Your task to perform on an android device: toggle pop-ups in chrome Image 0: 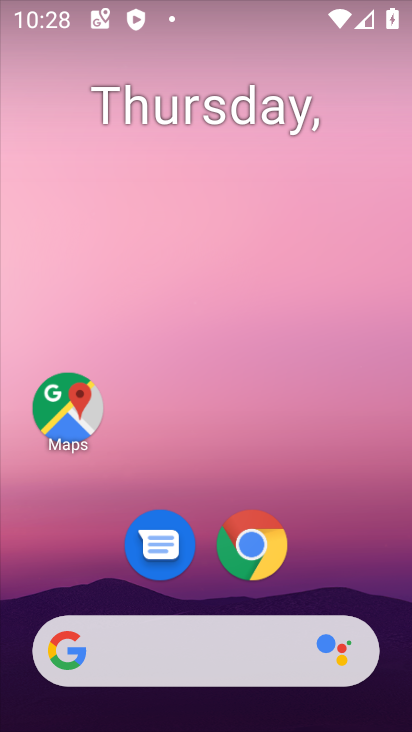
Step 0: click (252, 546)
Your task to perform on an android device: toggle pop-ups in chrome Image 1: 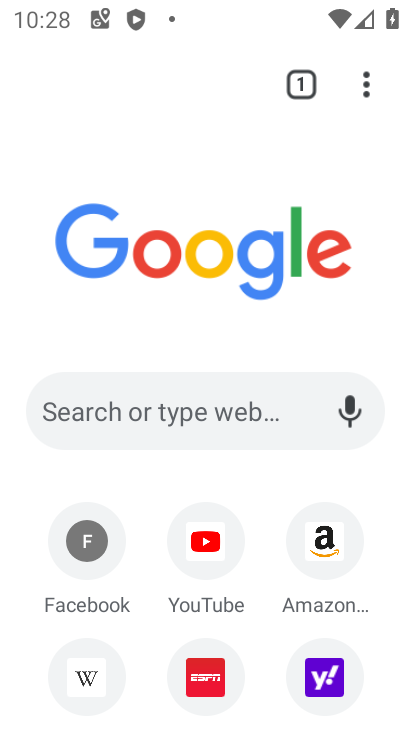
Step 1: click (367, 85)
Your task to perform on an android device: toggle pop-ups in chrome Image 2: 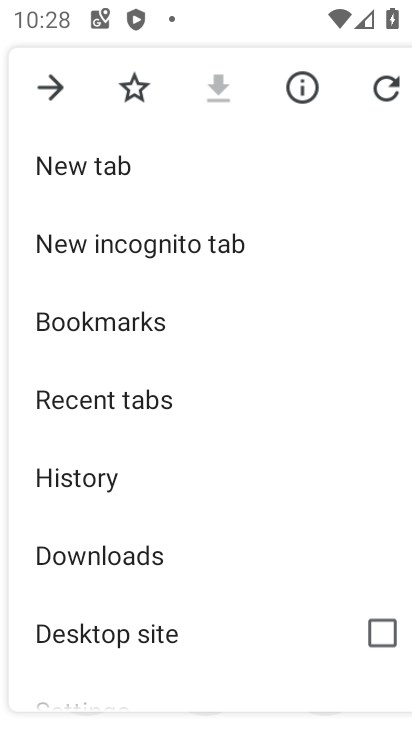
Step 2: drag from (127, 525) to (205, 439)
Your task to perform on an android device: toggle pop-ups in chrome Image 3: 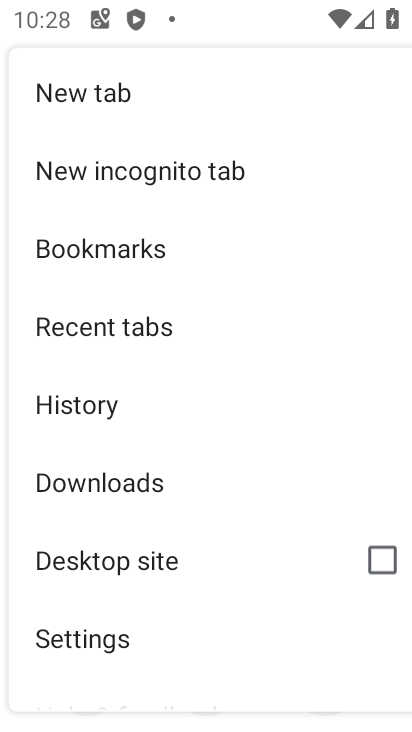
Step 3: click (82, 637)
Your task to perform on an android device: toggle pop-ups in chrome Image 4: 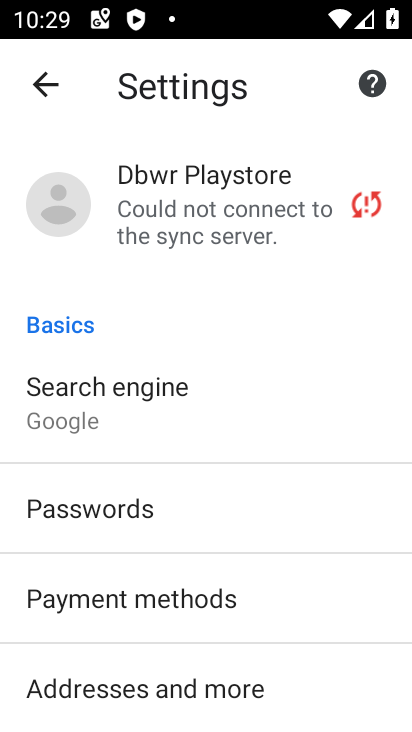
Step 4: drag from (224, 618) to (312, 467)
Your task to perform on an android device: toggle pop-ups in chrome Image 5: 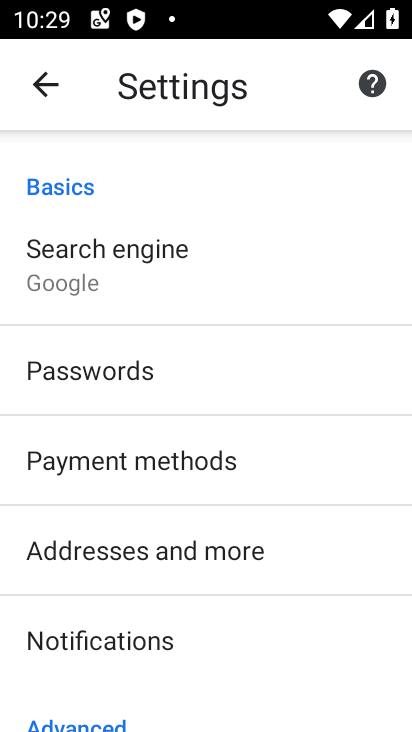
Step 5: drag from (211, 640) to (263, 450)
Your task to perform on an android device: toggle pop-ups in chrome Image 6: 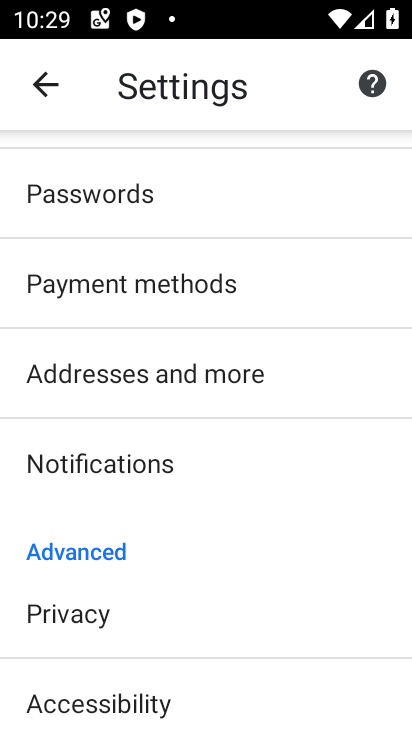
Step 6: drag from (179, 630) to (261, 475)
Your task to perform on an android device: toggle pop-ups in chrome Image 7: 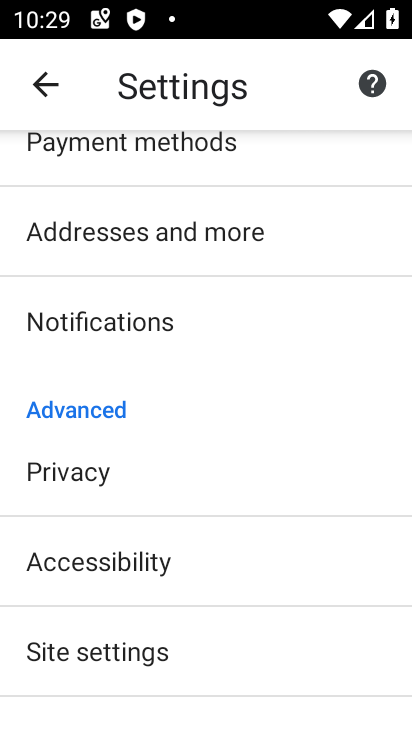
Step 7: drag from (175, 642) to (259, 458)
Your task to perform on an android device: toggle pop-ups in chrome Image 8: 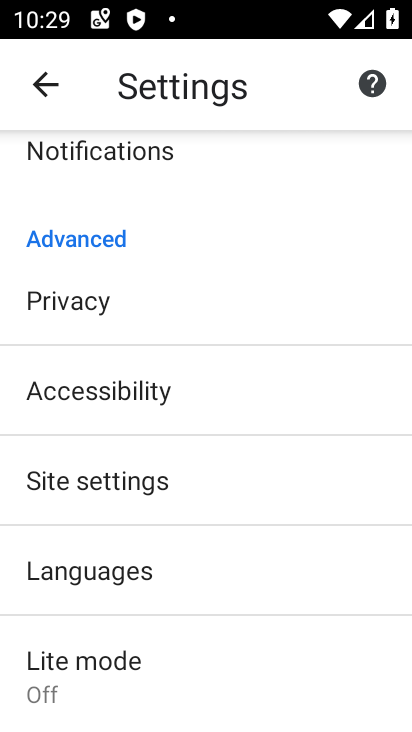
Step 8: click (134, 477)
Your task to perform on an android device: toggle pop-ups in chrome Image 9: 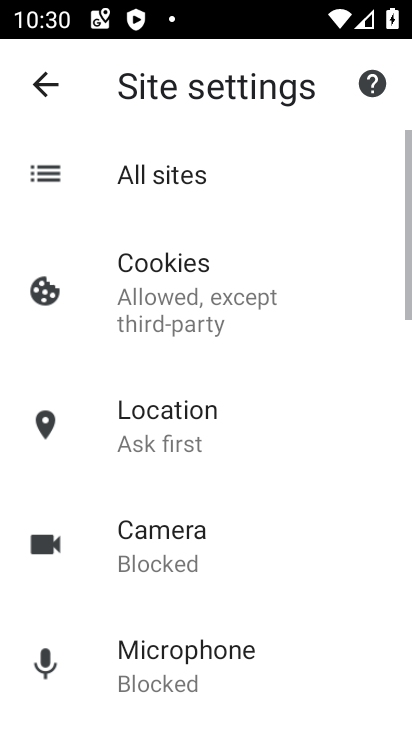
Step 9: drag from (165, 596) to (272, 444)
Your task to perform on an android device: toggle pop-ups in chrome Image 10: 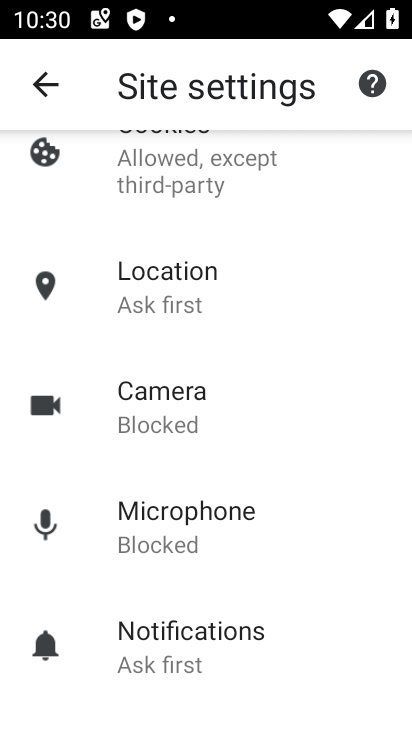
Step 10: drag from (200, 656) to (299, 523)
Your task to perform on an android device: toggle pop-ups in chrome Image 11: 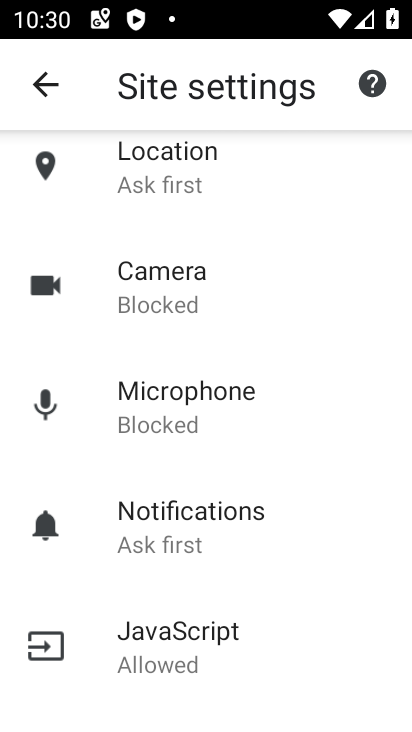
Step 11: drag from (225, 660) to (336, 527)
Your task to perform on an android device: toggle pop-ups in chrome Image 12: 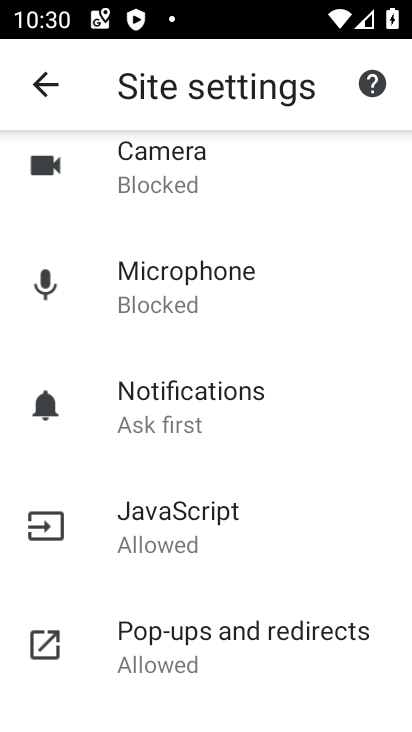
Step 12: click (249, 631)
Your task to perform on an android device: toggle pop-ups in chrome Image 13: 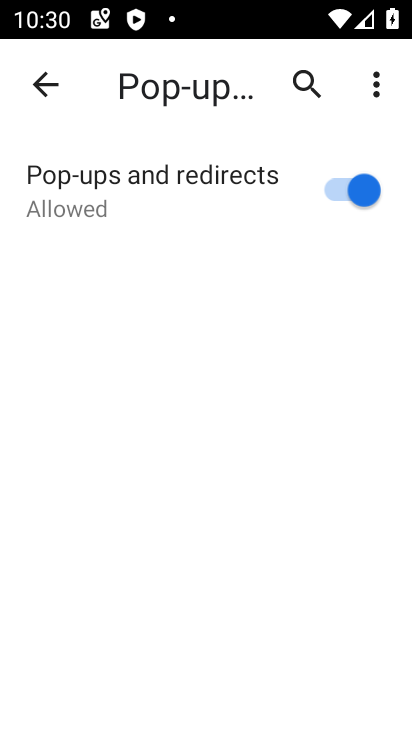
Step 13: task complete